Your task to perform on an android device: open device folders in google photos Image 0: 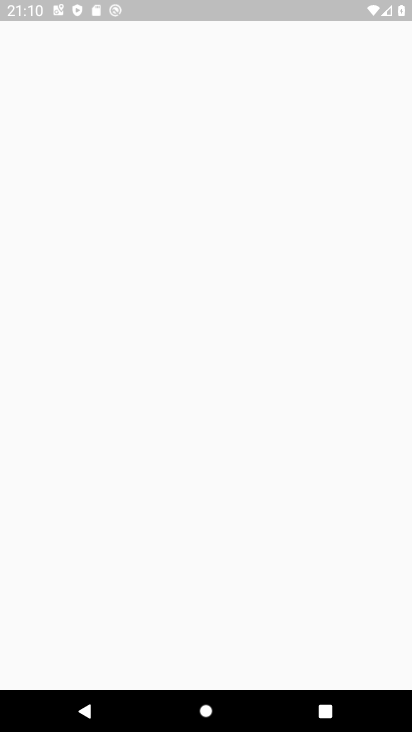
Step 0: press home button
Your task to perform on an android device: open device folders in google photos Image 1: 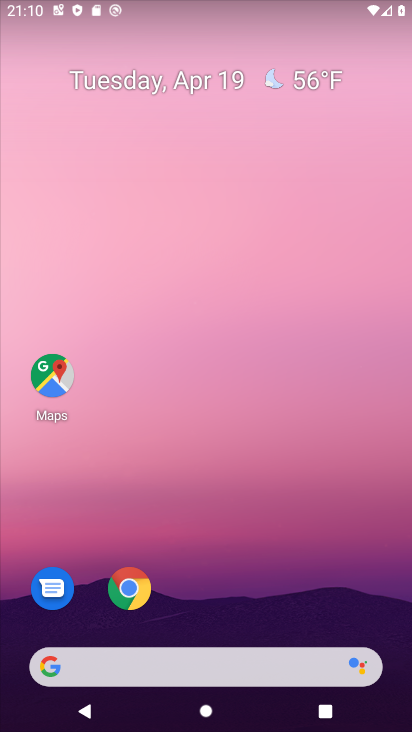
Step 1: drag from (240, 600) to (225, 45)
Your task to perform on an android device: open device folders in google photos Image 2: 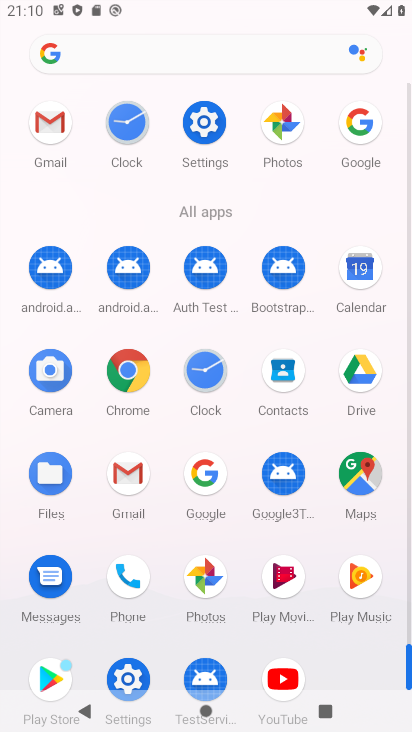
Step 2: click (285, 125)
Your task to perform on an android device: open device folders in google photos Image 3: 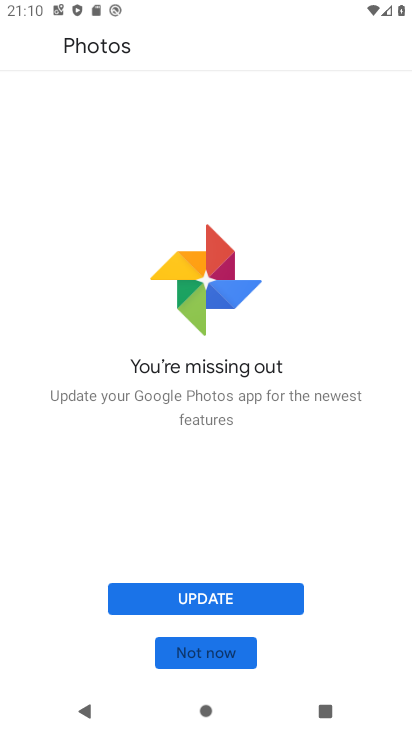
Step 3: click (204, 653)
Your task to perform on an android device: open device folders in google photos Image 4: 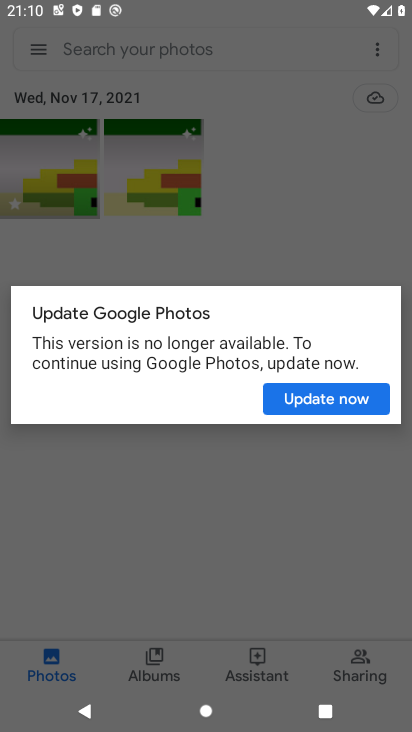
Step 4: click (295, 394)
Your task to perform on an android device: open device folders in google photos Image 5: 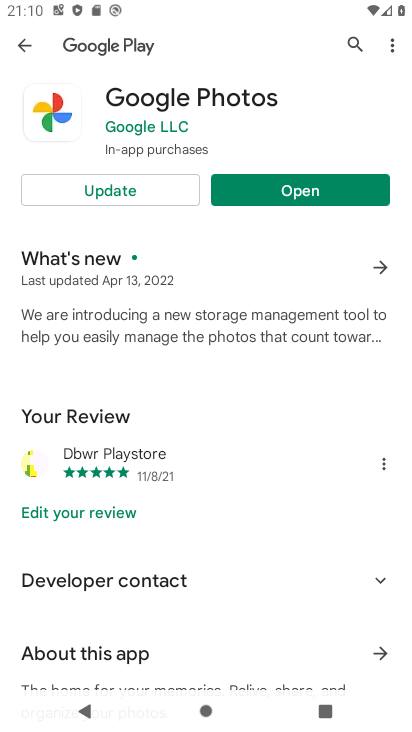
Step 5: click (313, 193)
Your task to perform on an android device: open device folders in google photos Image 6: 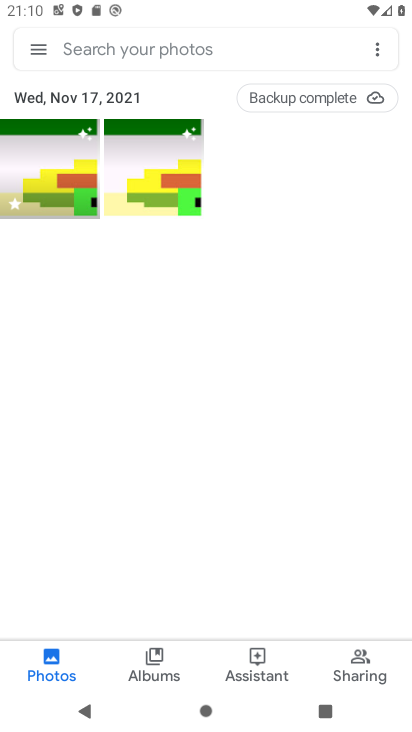
Step 6: click (42, 50)
Your task to perform on an android device: open device folders in google photos Image 7: 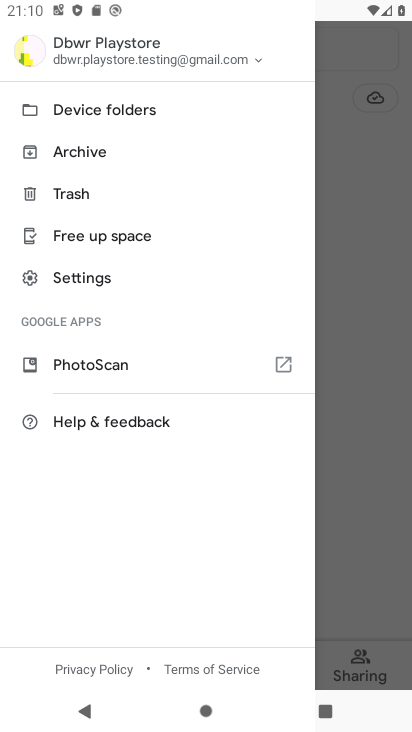
Step 7: click (106, 116)
Your task to perform on an android device: open device folders in google photos Image 8: 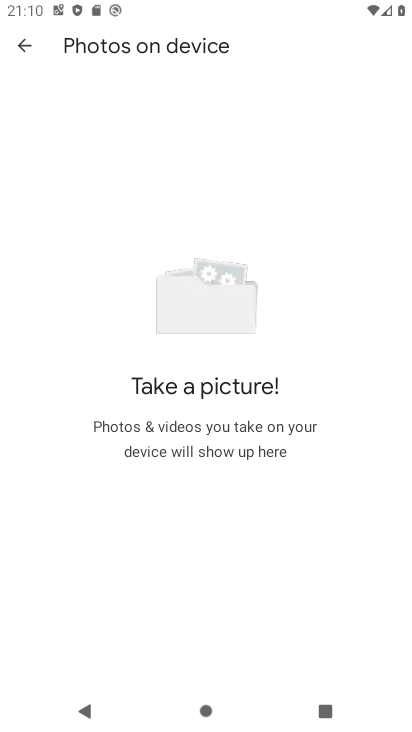
Step 8: task complete